Your task to perform on an android device: add a contact Image 0: 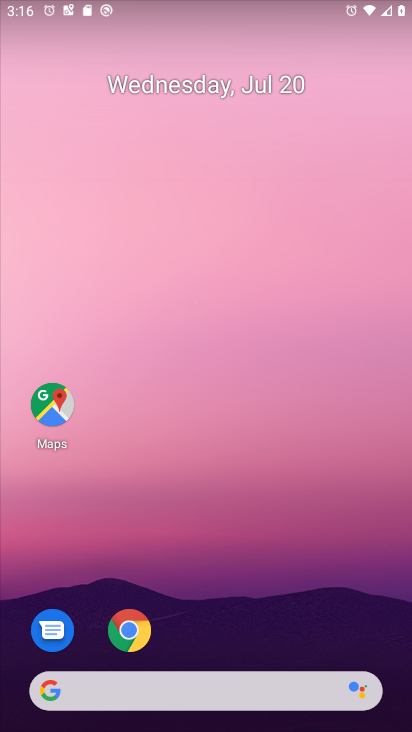
Step 0: drag from (219, 646) to (288, 164)
Your task to perform on an android device: add a contact Image 1: 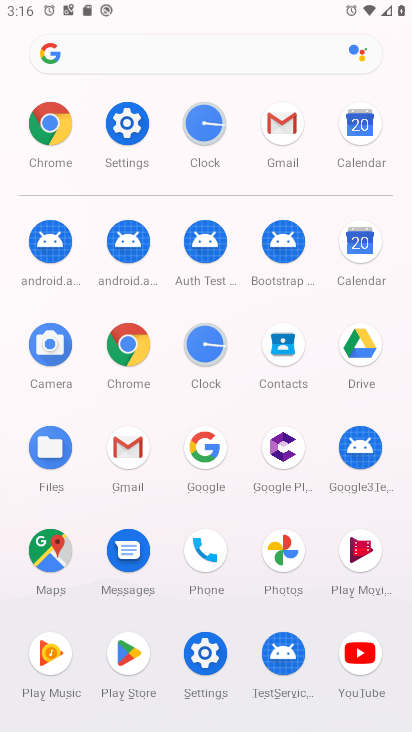
Step 1: click (278, 354)
Your task to perform on an android device: add a contact Image 2: 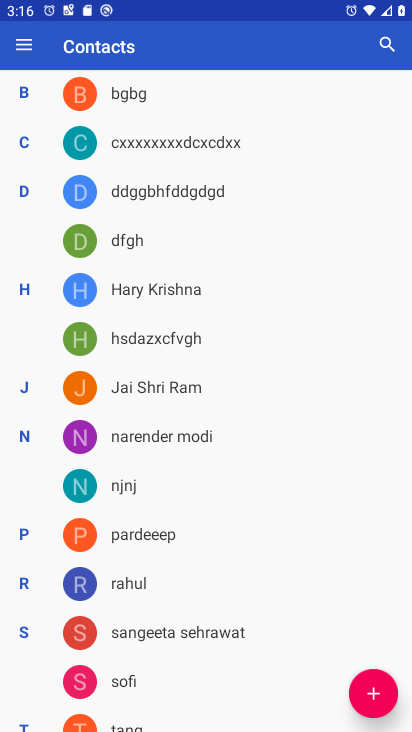
Step 2: click (368, 697)
Your task to perform on an android device: add a contact Image 3: 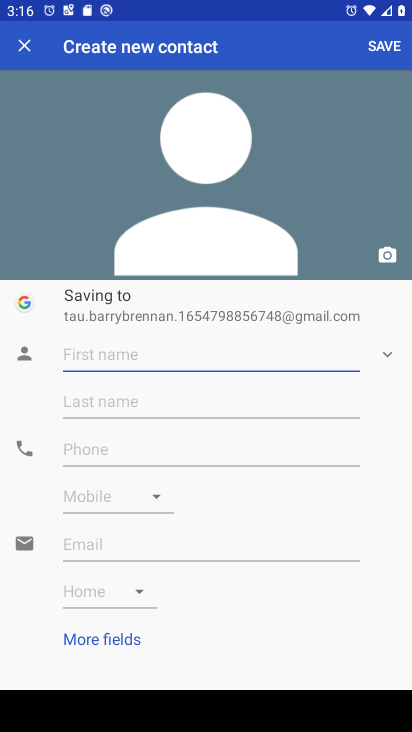
Step 3: type "tyvchvcjyj"
Your task to perform on an android device: add a contact Image 4: 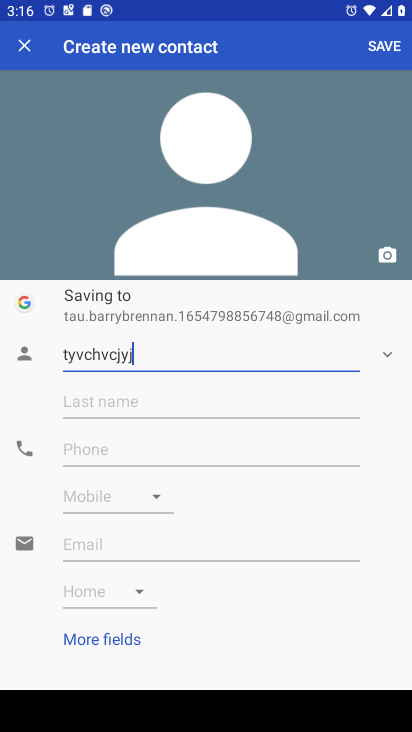
Step 4: click (164, 448)
Your task to perform on an android device: add a contact Image 5: 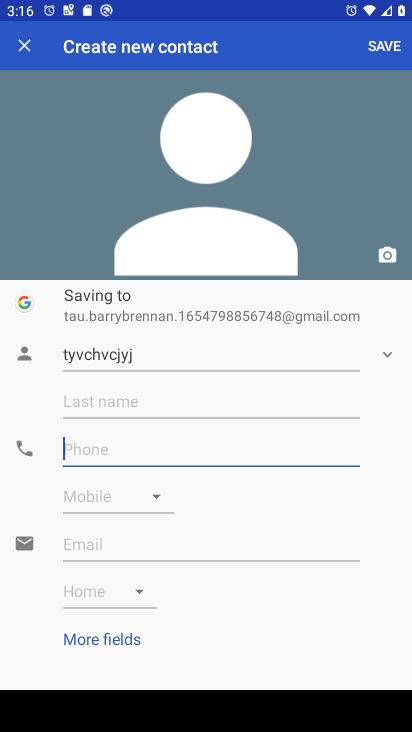
Step 5: type "98765644765"
Your task to perform on an android device: add a contact Image 6: 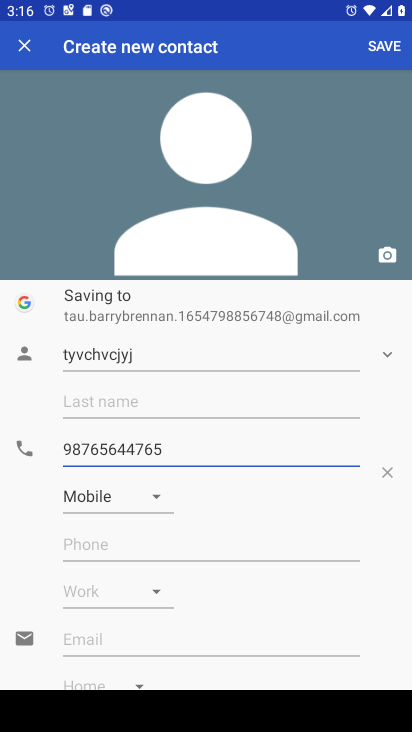
Step 6: click (387, 38)
Your task to perform on an android device: add a contact Image 7: 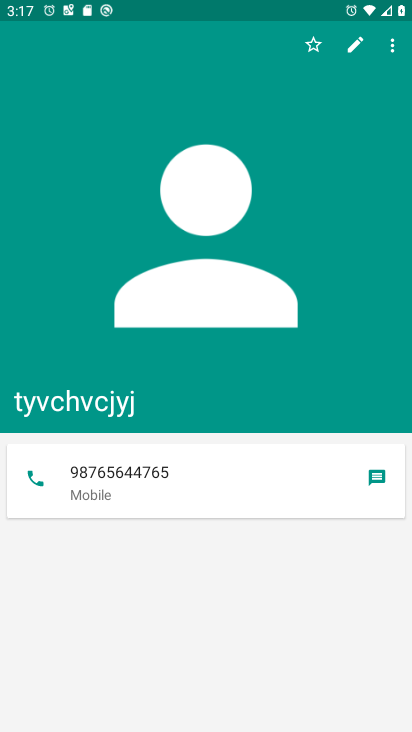
Step 7: task complete